Your task to perform on an android device: turn off location Image 0: 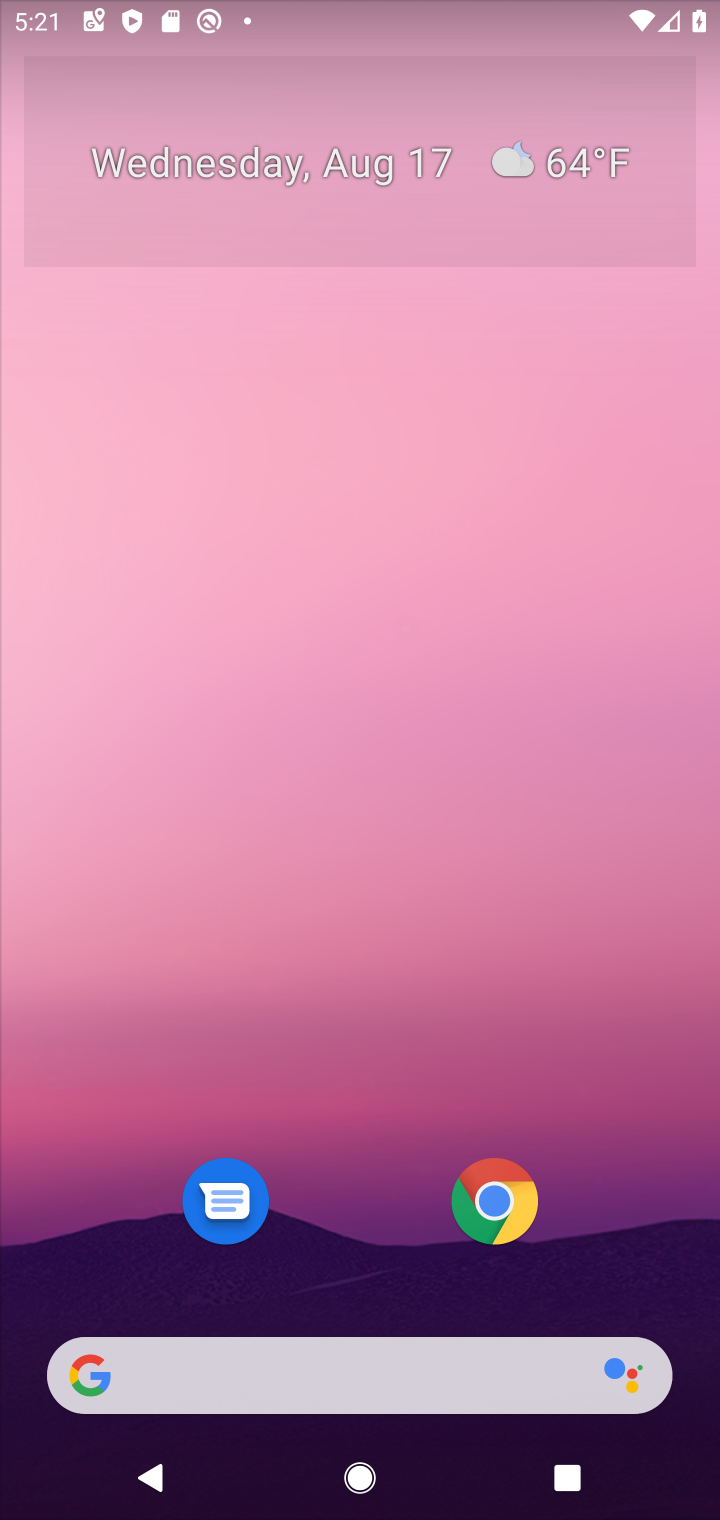
Step 0: press home button
Your task to perform on an android device: turn off location Image 1: 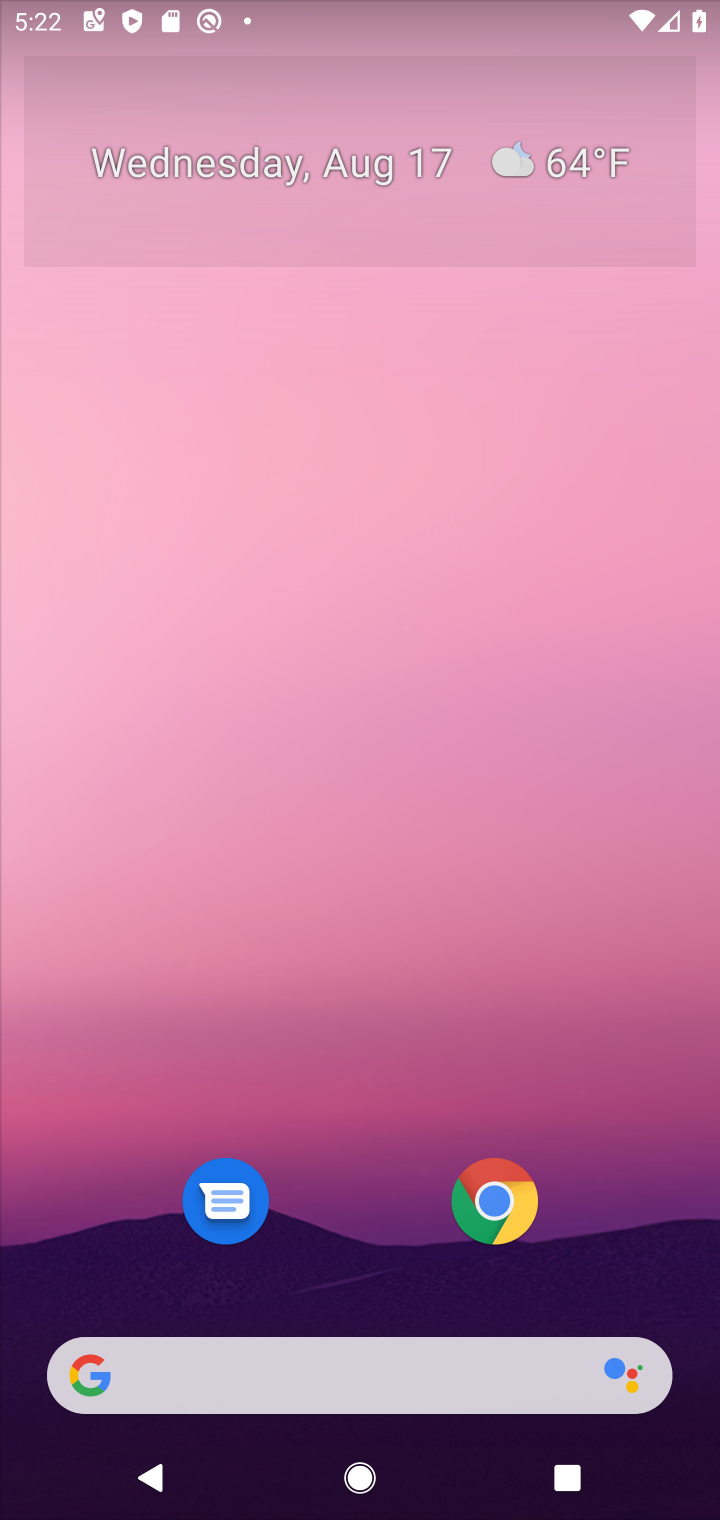
Step 1: drag from (354, 1306) to (538, 4)
Your task to perform on an android device: turn off location Image 2: 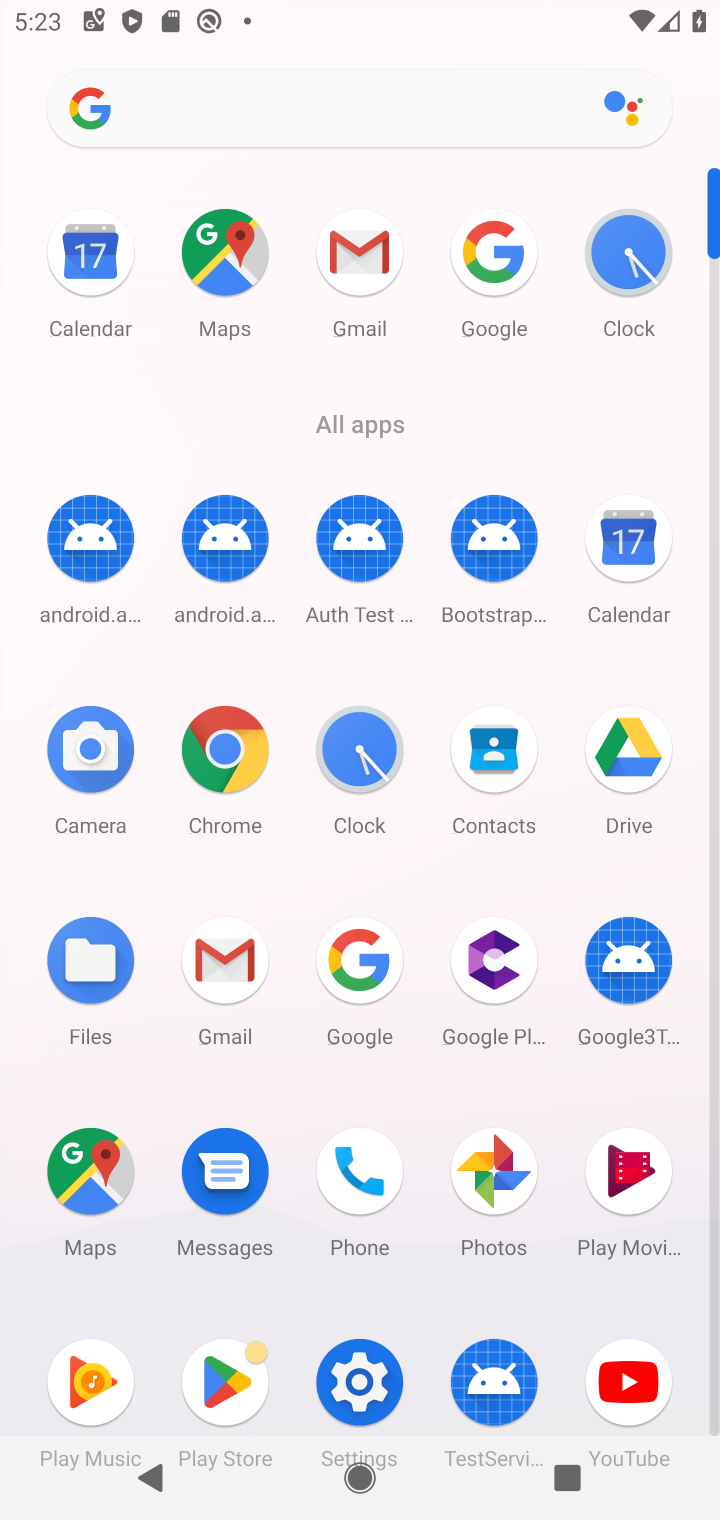
Step 2: click (368, 1403)
Your task to perform on an android device: turn off location Image 3: 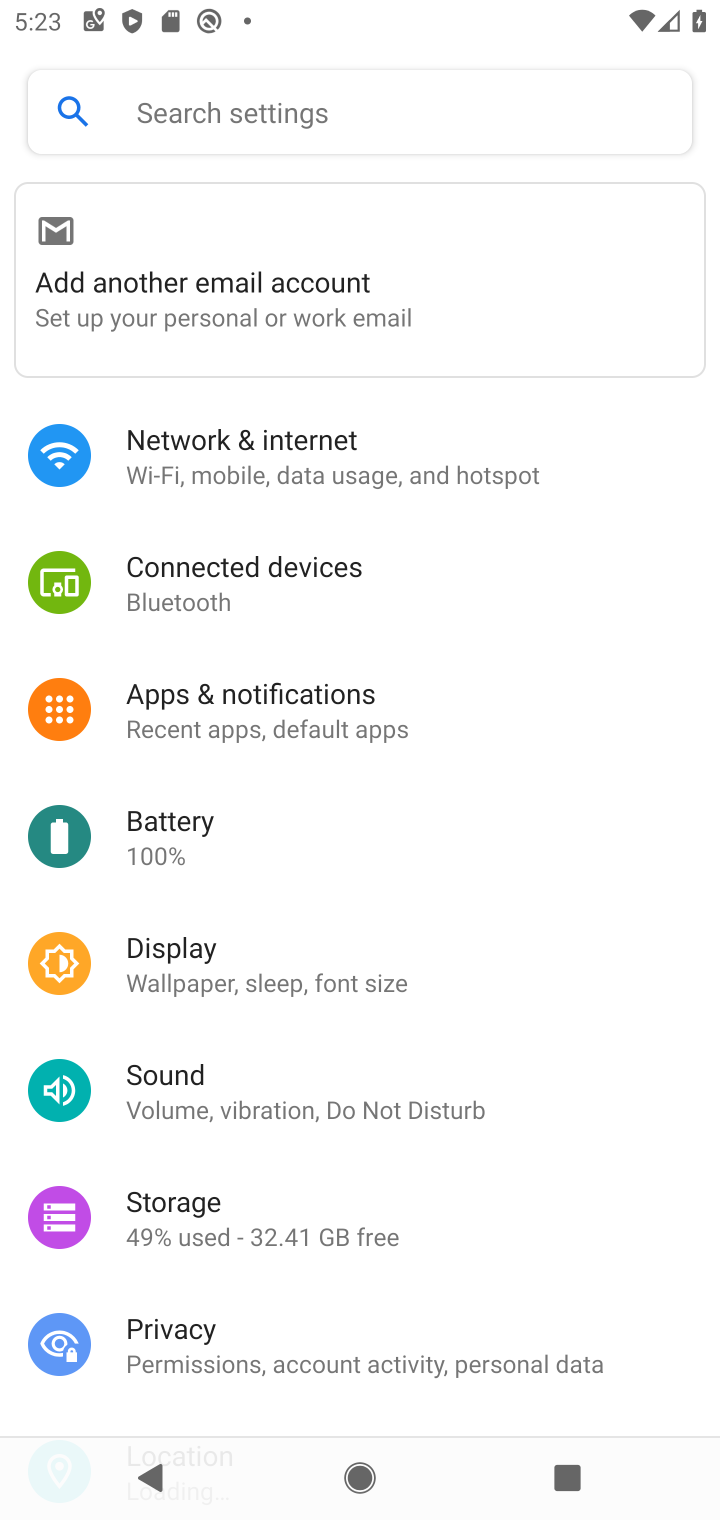
Step 3: click (187, 1288)
Your task to perform on an android device: turn off location Image 4: 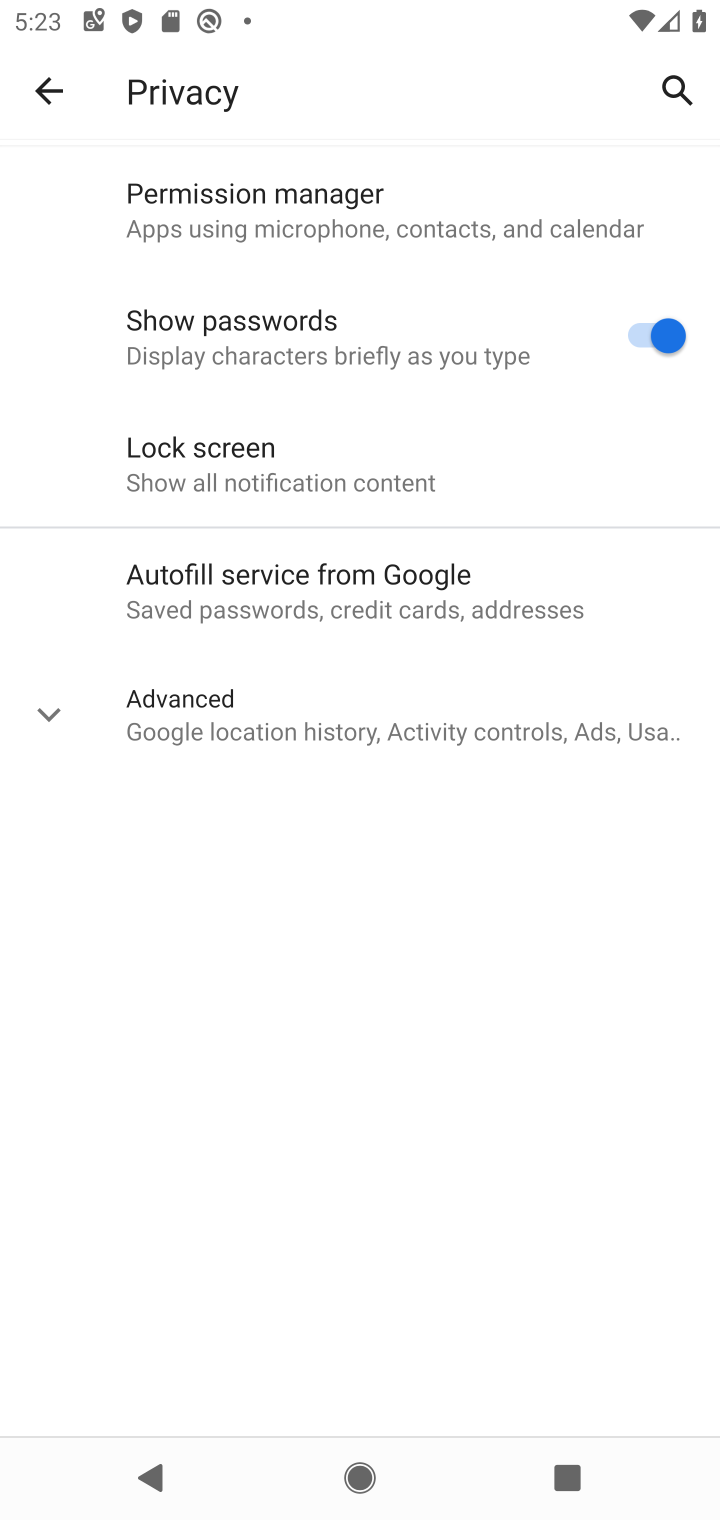
Step 4: press back button
Your task to perform on an android device: turn off location Image 5: 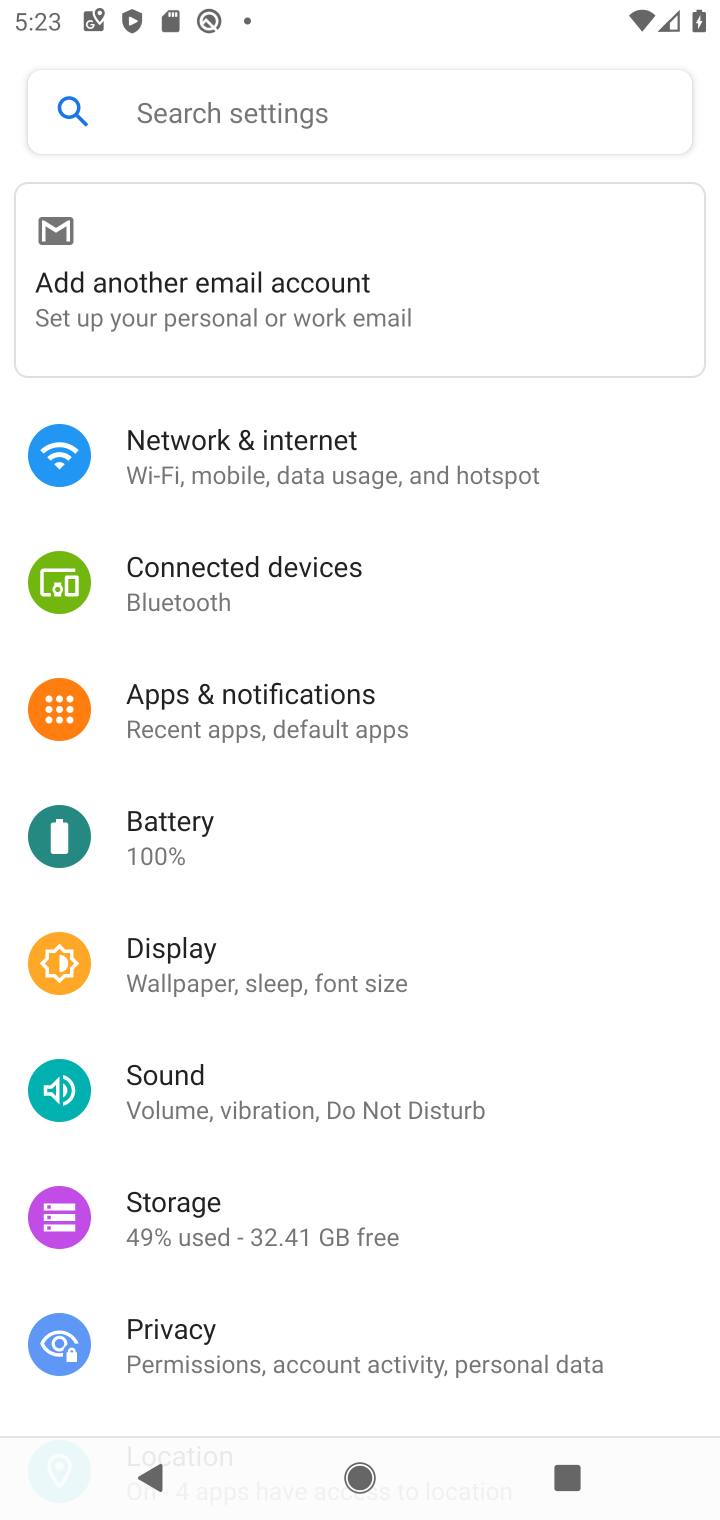
Step 5: drag from (521, 1135) to (529, 44)
Your task to perform on an android device: turn off location Image 6: 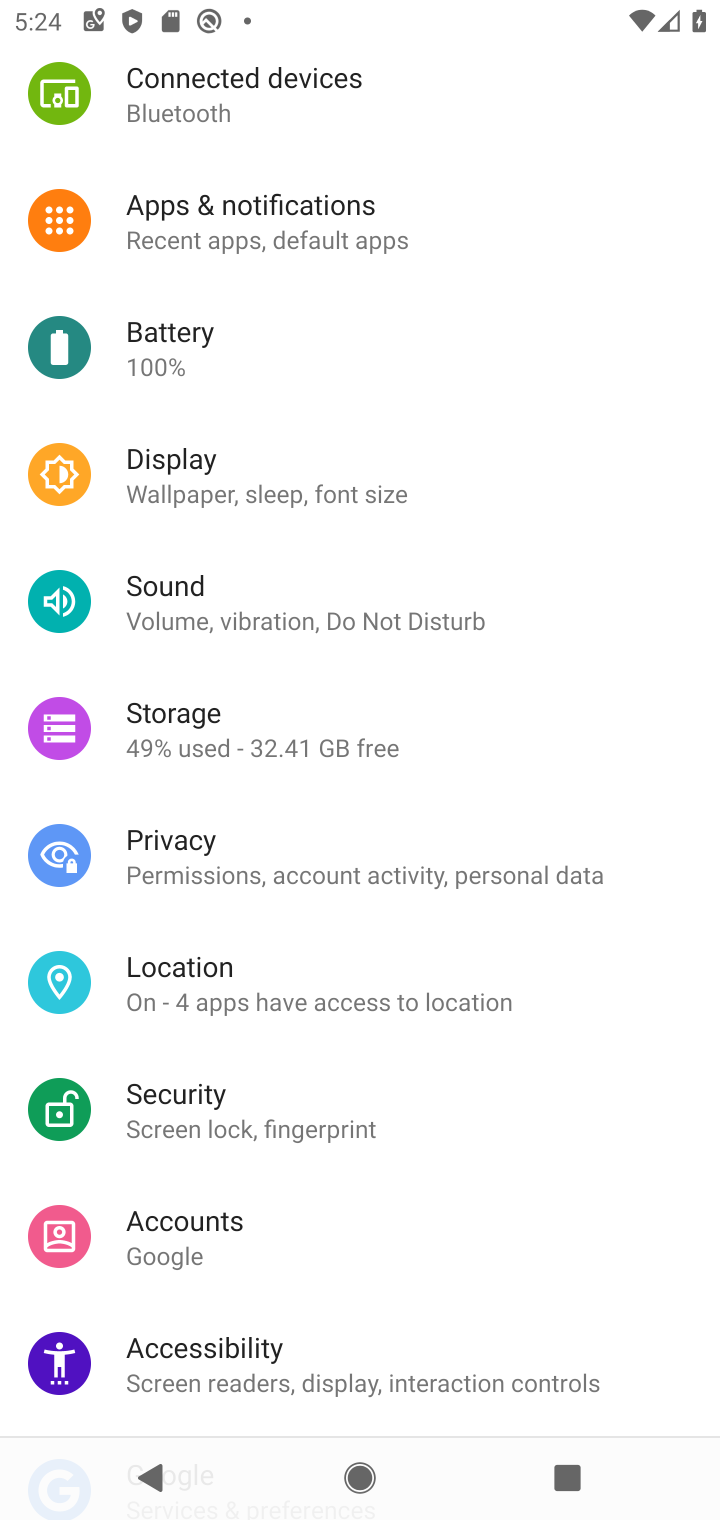
Step 6: click (159, 991)
Your task to perform on an android device: turn off location Image 7: 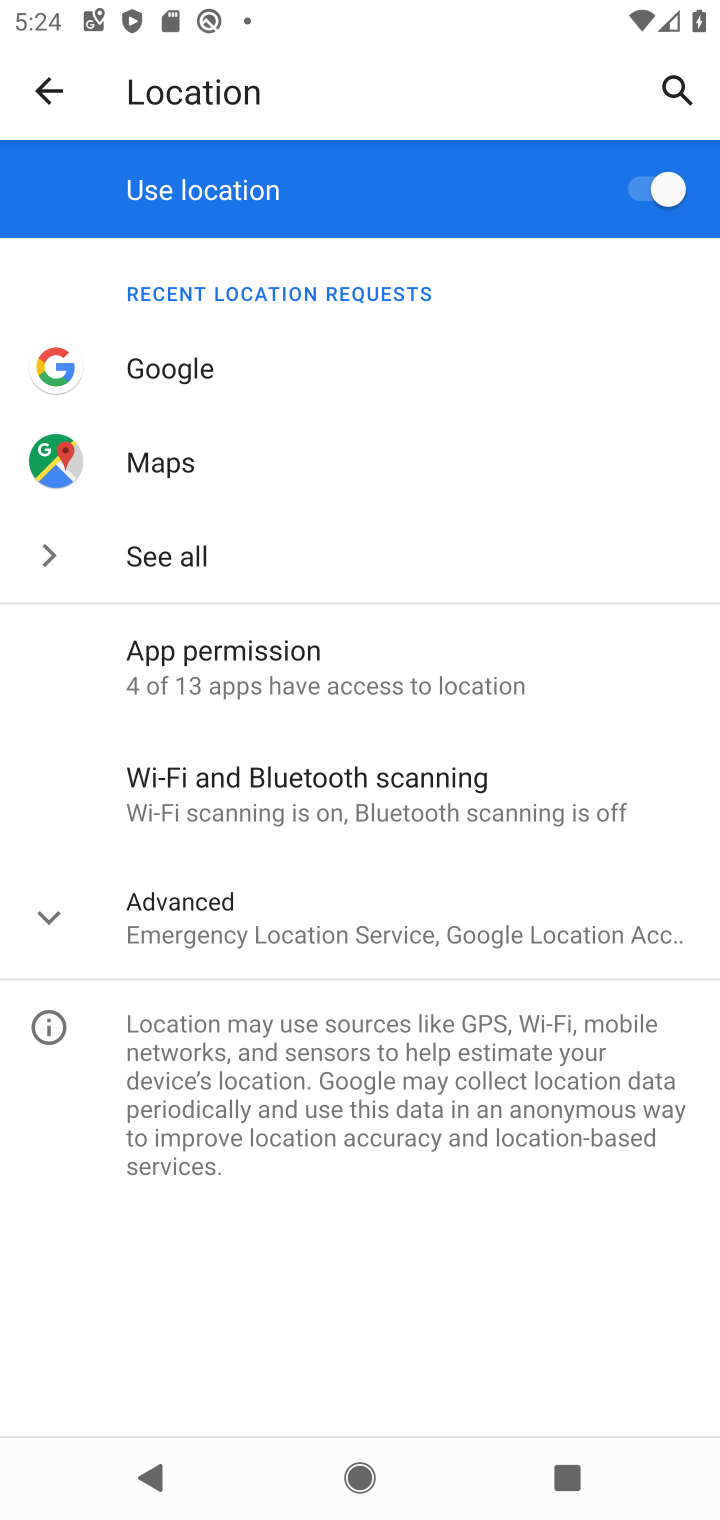
Step 7: click (676, 210)
Your task to perform on an android device: turn off location Image 8: 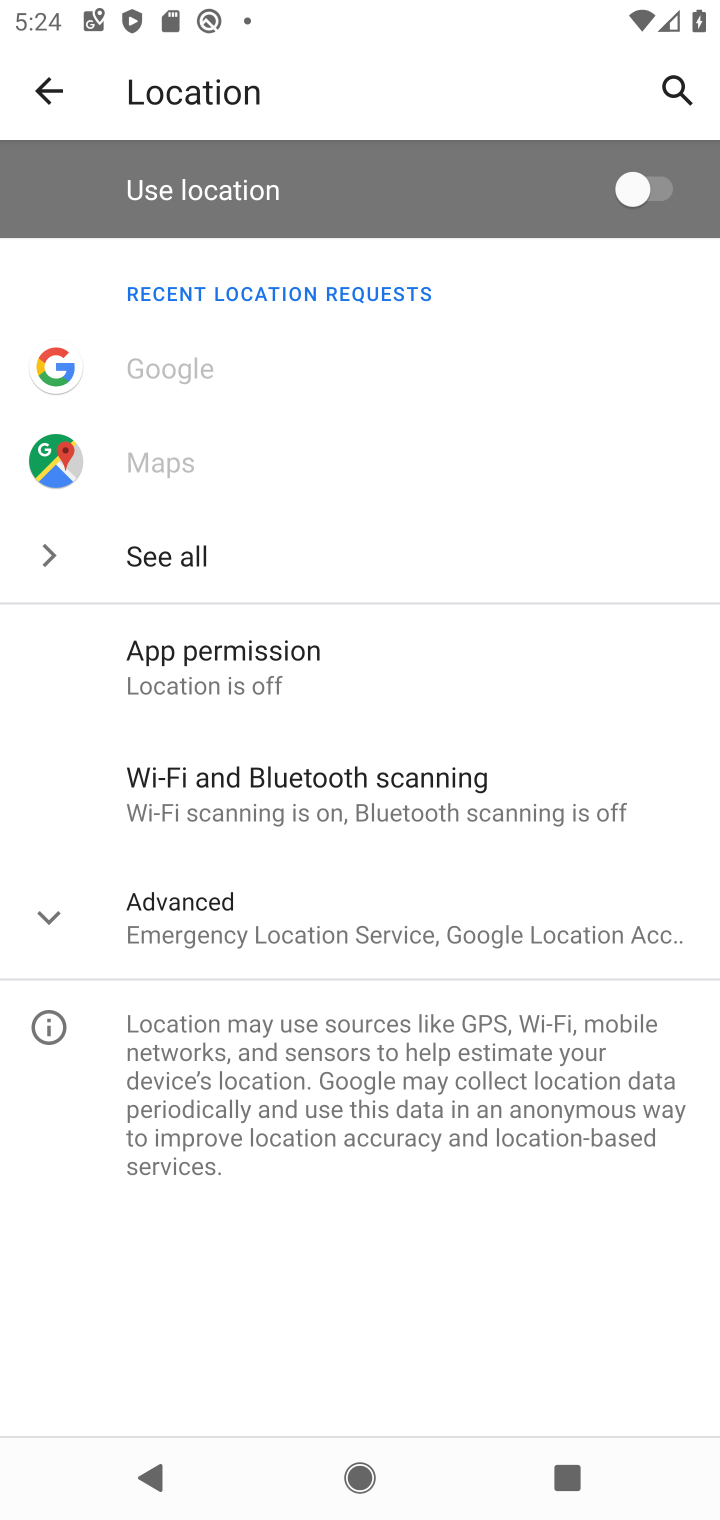
Step 8: task complete